Your task to perform on an android device: Open the phone app and click the voicemail tab. Image 0: 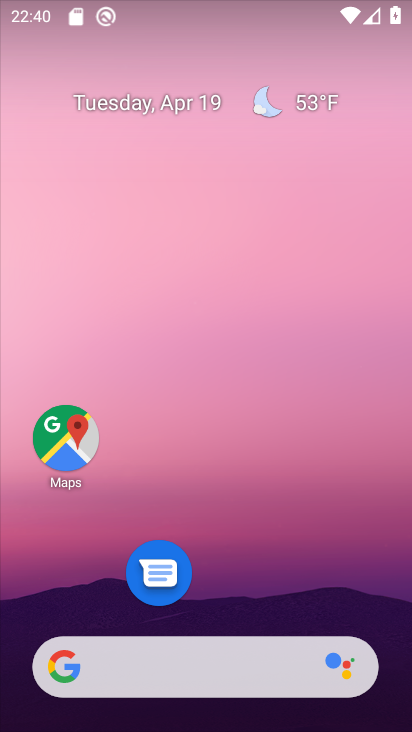
Step 0: press home button
Your task to perform on an android device: Open the phone app and click the voicemail tab. Image 1: 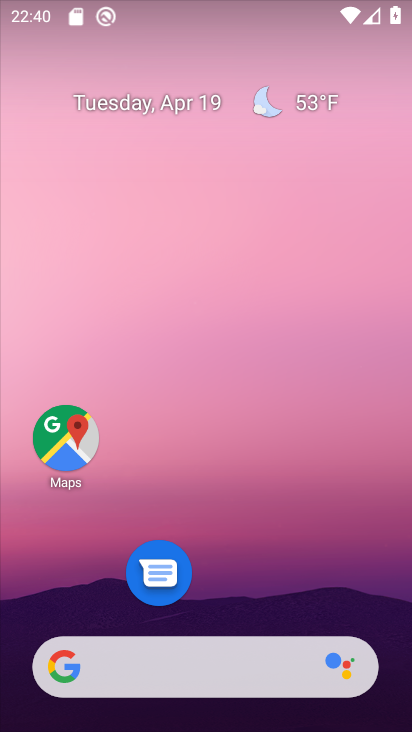
Step 1: drag from (207, 570) to (240, 56)
Your task to perform on an android device: Open the phone app and click the voicemail tab. Image 2: 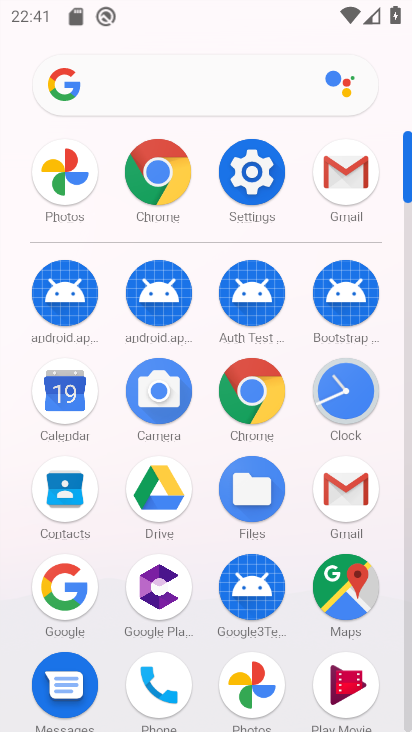
Step 2: click (150, 683)
Your task to perform on an android device: Open the phone app and click the voicemail tab. Image 3: 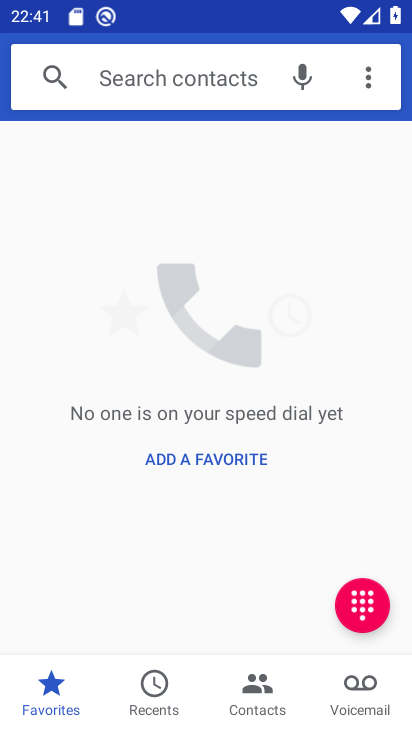
Step 3: click (359, 674)
Your task to perform on an android device: Open the phone app and click the voicemail tab. Image 4: 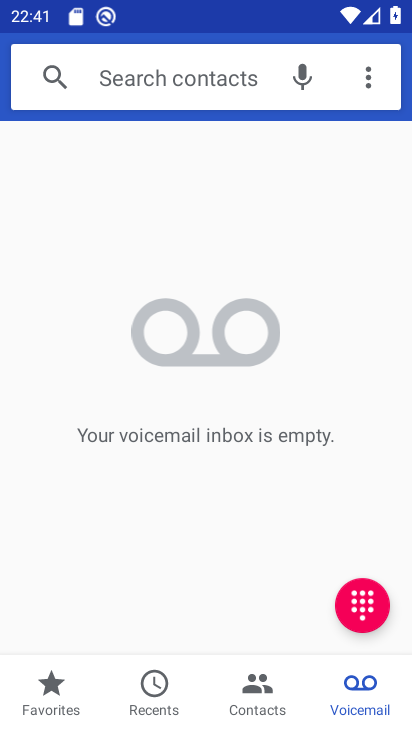
Step 4: task complete